Your task to perform on an android device: Go to Wikipedia Image 0: 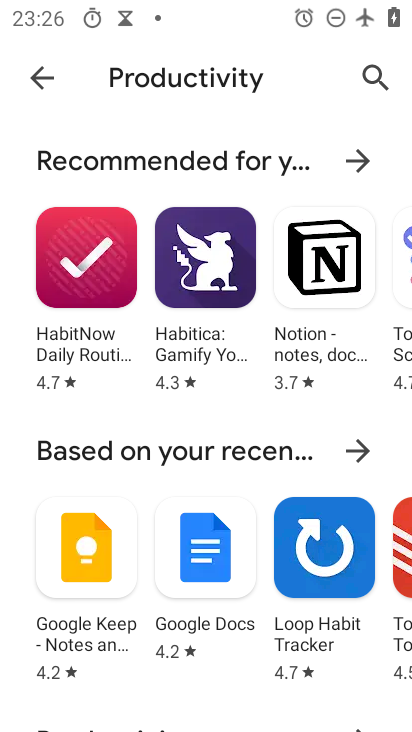
Step 0: press home button
Your task to perform on an android device: Go to Wikipedia Image 1: 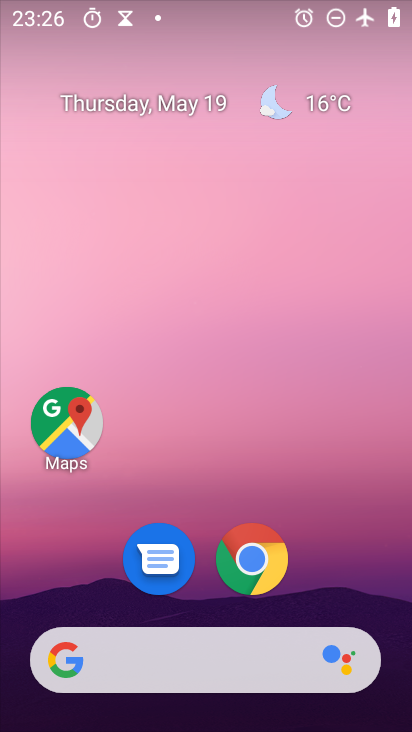
Step 1: click (249, 558)
Your task to perform on an android device: Go to Wikipedia Image 2: 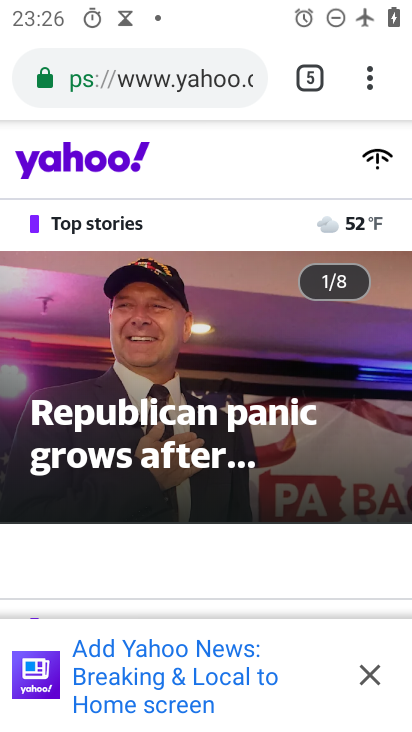
Step 2: click (369, 86)
Your task to perform on an android device: Go to Wikipedia Image 3: 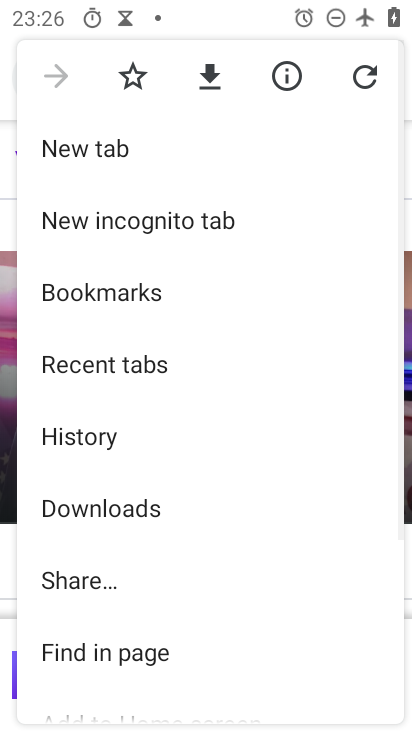
Step 3: click (85, 146)
Your task to perform on an android device: Go to Wikipedia Image 4: 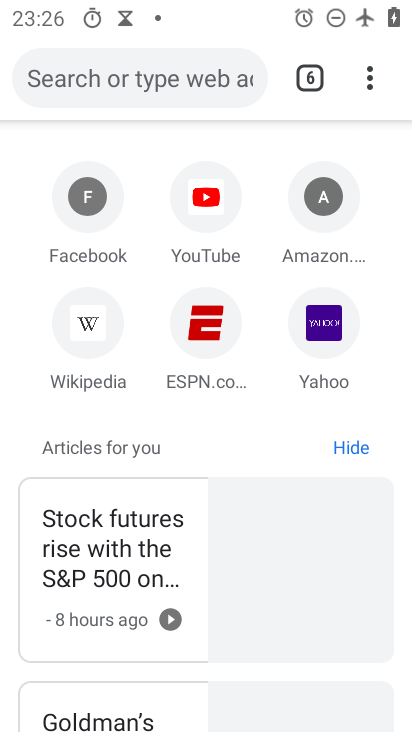
Step 4: click (87, 327)
Your task to perform on an android device: Go to Wikipedia Image 5: 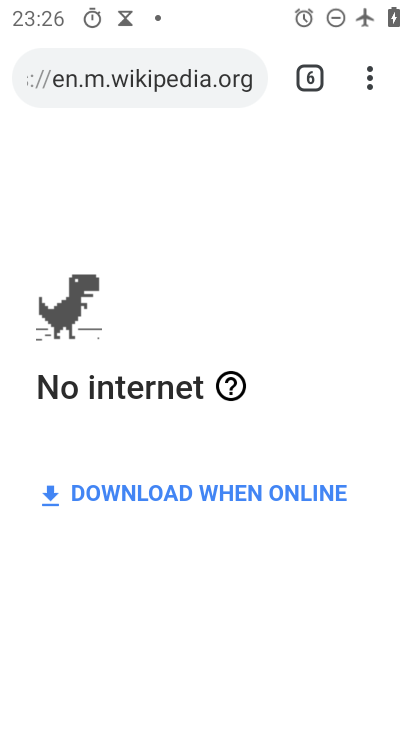
Step 5: task complete